Your task to perform on an android device: Show me the alarms in the clock app Image 0: 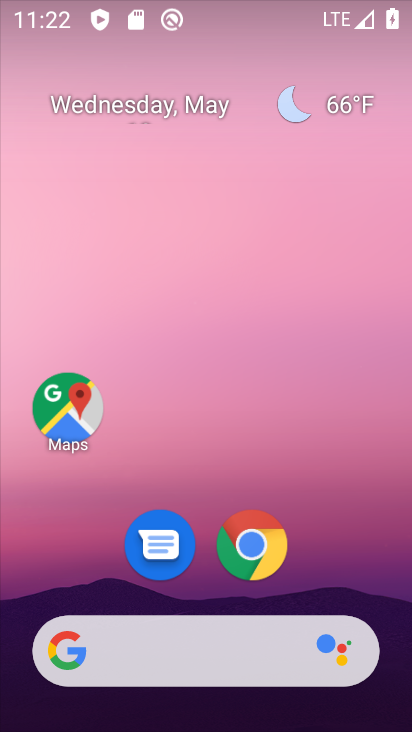
Step 0: click (46, 720)
Your task to perform on an android device: Show me the alarms in the clock app Image 1: 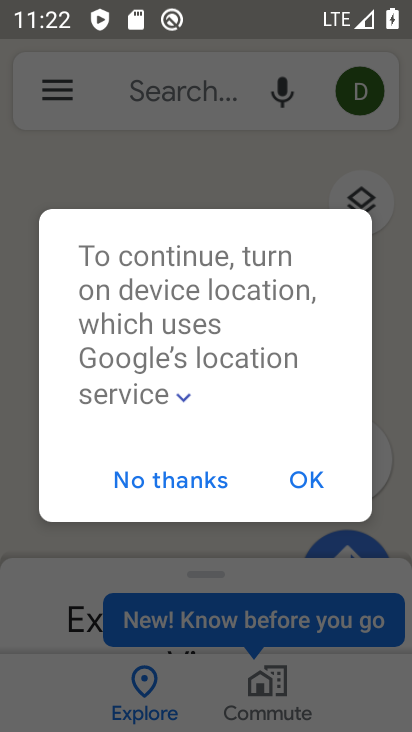
Step 1: press home button
Your task to perform on an android device: Show me the alarms in the clock app Image 2: 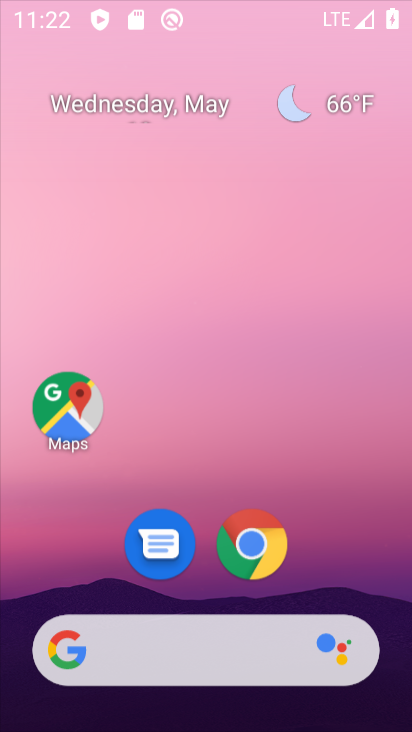
Step 2: click (210, 482)
Your task to perform on an android device: Show me the alarms in the clock app Image 3: 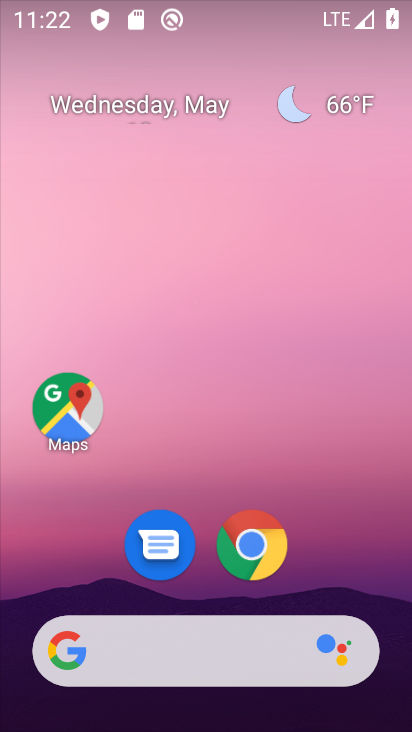
Step 3: drag from (230, 706) to (299, 223)
Your task to perform on an android device: Show me the alarms in the clock app Image 4: 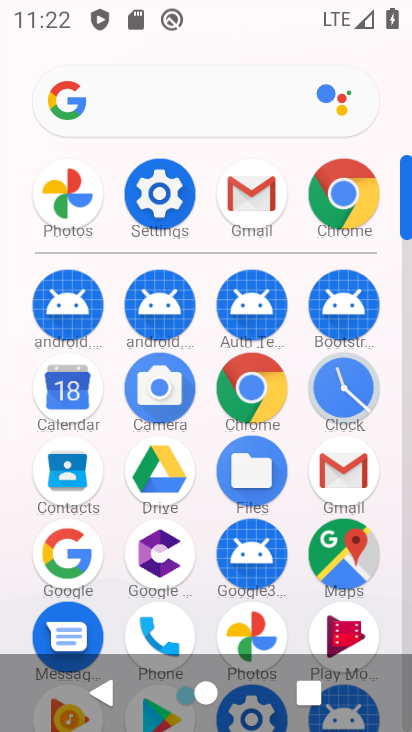
Step 4: click (346, 381)
Your task to perform on an android device: Show me the alarms in the clock app Image 5: 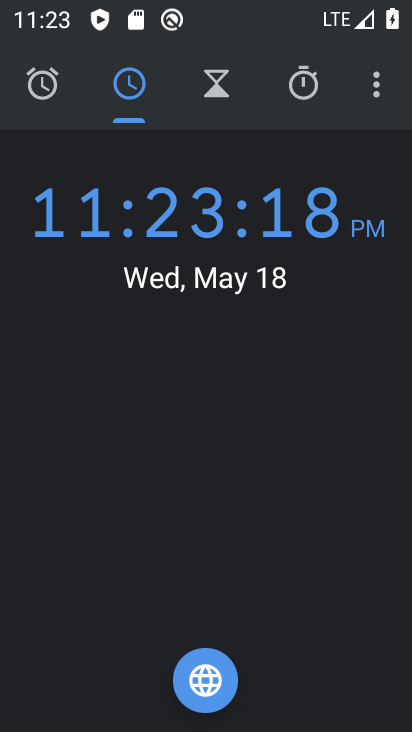
Step 5: click (49, 80)
Your task to perform on an android device: Show me the alarms in the clock app Image 6: 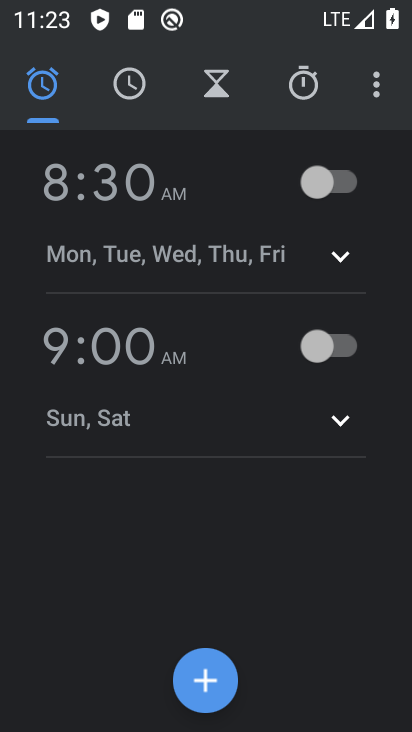
Step 6: task complete